Your task to perform on an android device: turn off data saver in the chrome app Image 0: 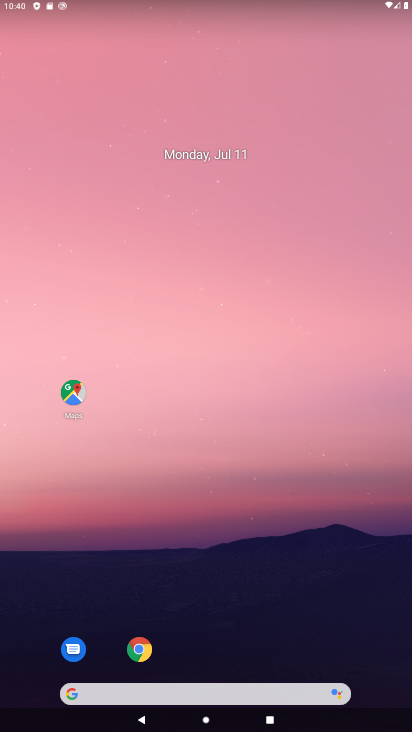
Step 0: click (142, 650)
Your task to perform on an android device: turn off data saver in the chrome app Image 1: 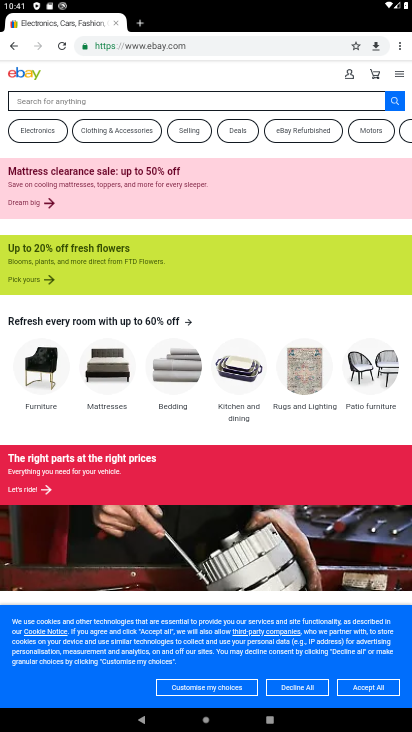
Step 1: click (399, 45)
Your task to perform on an android device: turn off data saver in the chrome app Image 2: 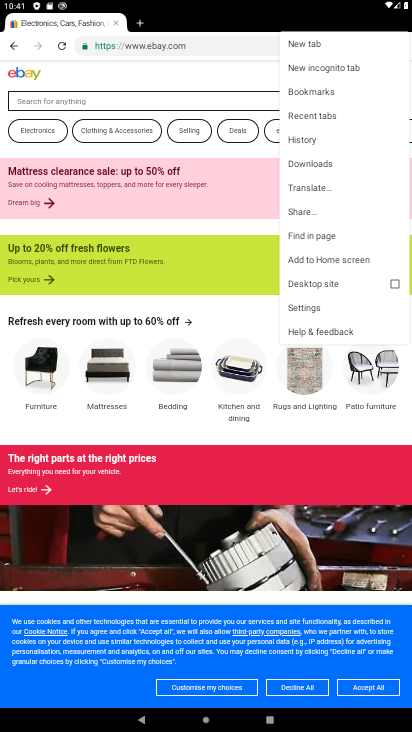
Step 2: click (314, 308)
Your task to perform on an android device: turn off data saver in the chrome app Image 3: 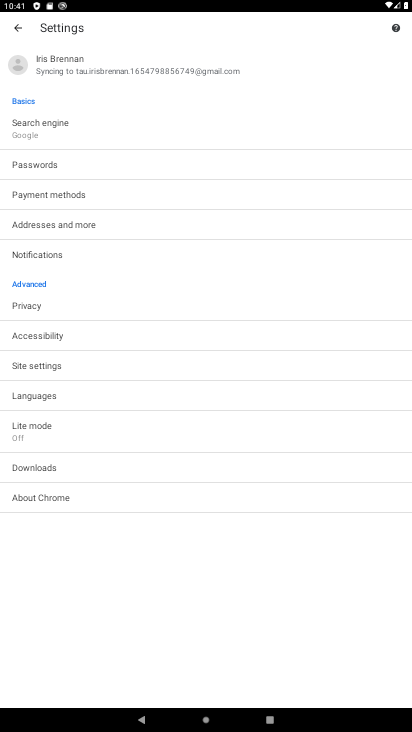
Step 3: click (39, 426)
Your task to perform on an android device: turn off data saver in the chrome app Image 4: 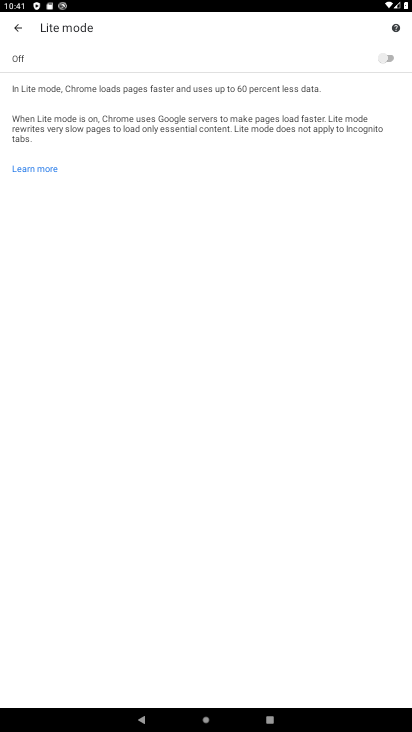
Step 4: task complete